Your task to perform on an android device: Open wifi settings Image 0: 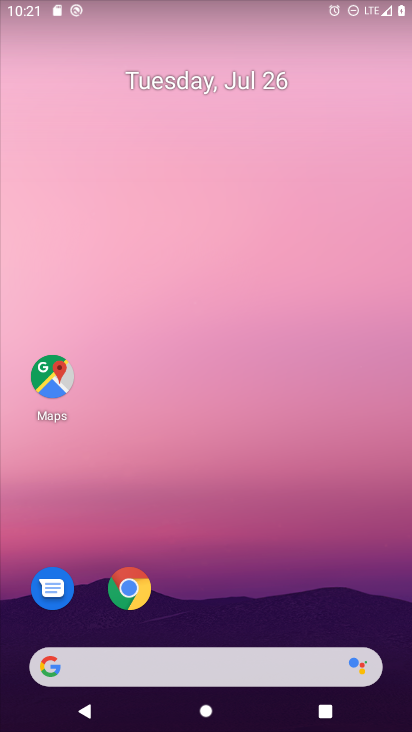
Step 0: drag from (206, 629) to (232, 228)
Your task to perform on an android device: Open wifi settings Image 1: 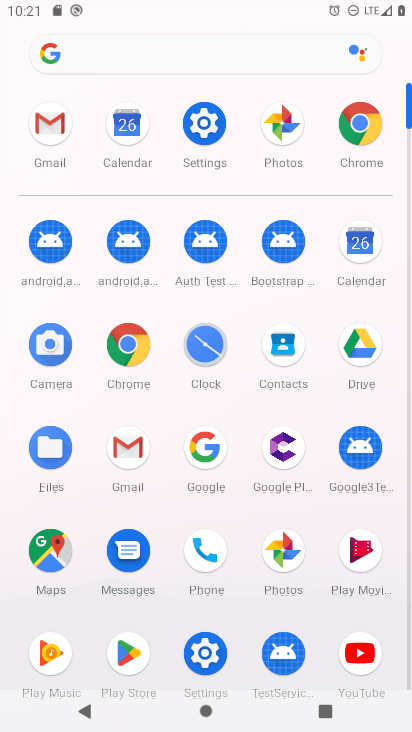
Step 1: click (205, 139)
Your task to perform on an android device: Open wifi settings Image 2: 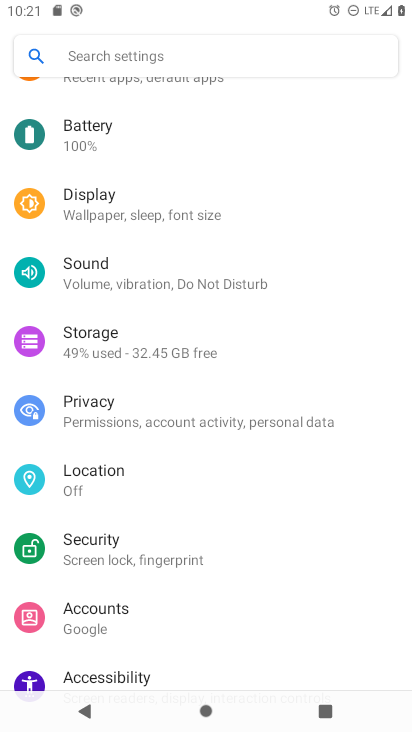
Step 2: drag from (205, 221) to (217, 530)
Your task to perform on an android device: Open wifi settings Image 3: 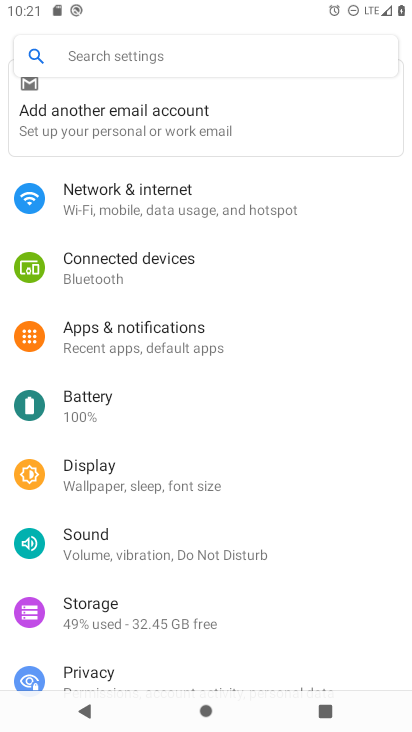
Step 3: click (201, 199)
Your task to perform on an android device: Open wifi settings Image 4: 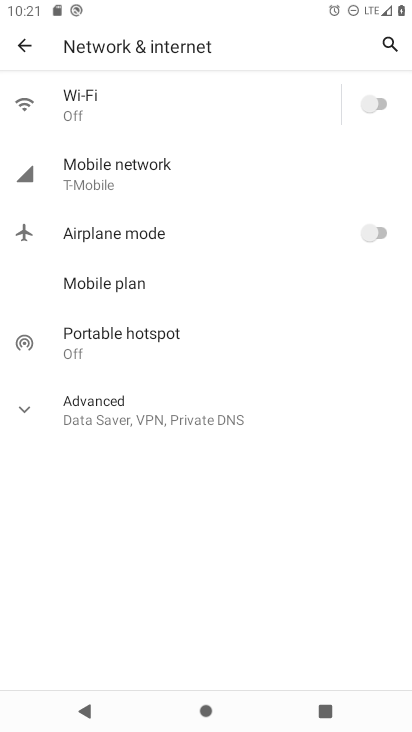
Step 4: click (96, 107)
Your task to perform on an android device: Open wifi settings Image 5: 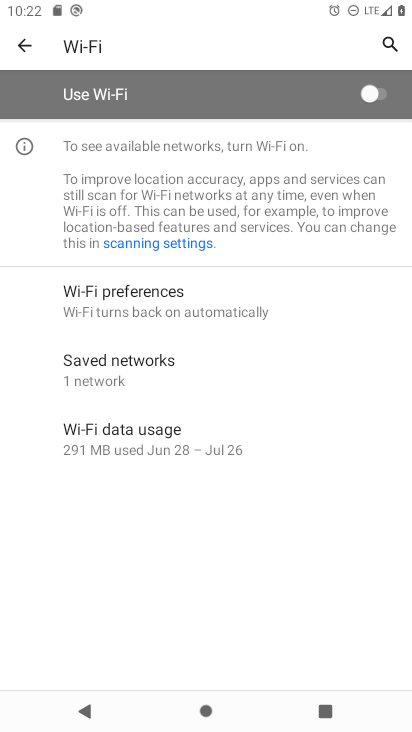
Step 5: task complete